Your task to perform on an android device: Search for pizza restaurants on Maps Image 0: 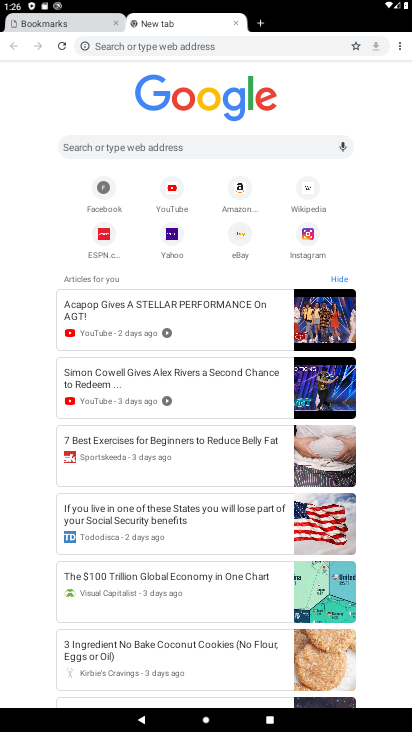
Step 0: press home button
Your task to perform on an android device: Search for pizza restaurants on Maps Image 1: 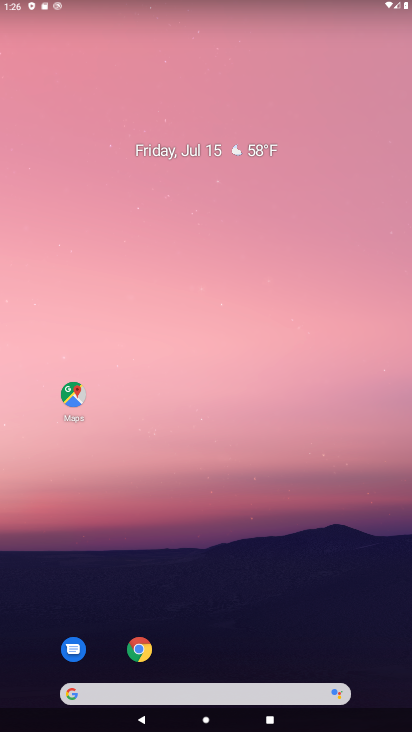
Step 1: drag from (279, 575) to (257, 55)
Your task to perform on an android device: Search for pizza restaurants on Maps Image 2: 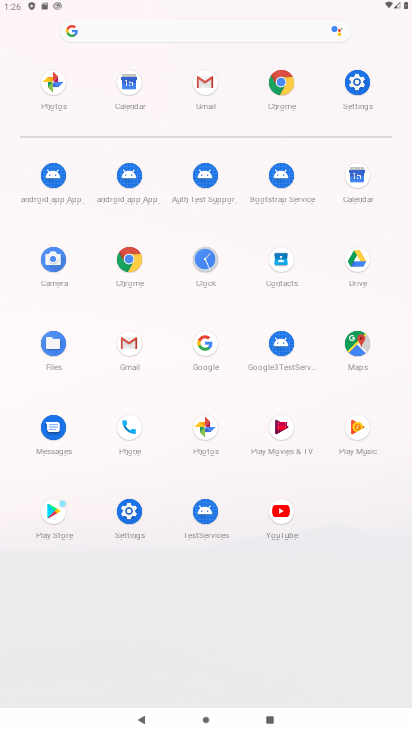
Step 2: click (364, 344)
Your task to perform on an android device: Search for pizza restaurants on Maps Image 3: 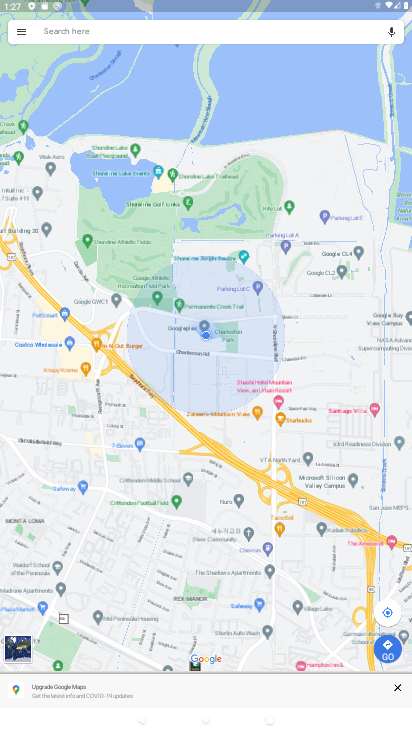
Step 3: click (206, 34)
Your task to perform on an android device: Search for pizza restaurants on Maps Image 4: 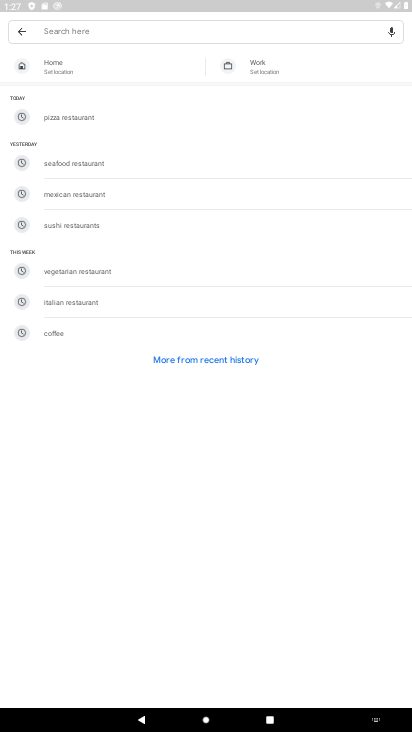
Step 4: click (83, 118)
Your task to perform on an android device: Search for pizza restaurants on Maps Image 5: 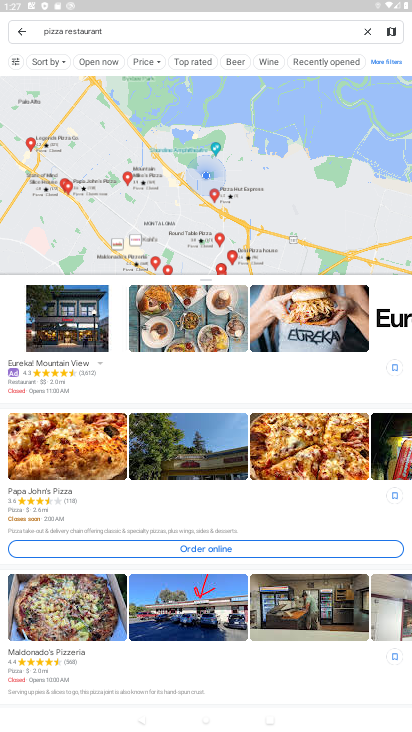
Step 5: task complete